Your task to perform on an android device: Open the phone app and click the voicemail tab. Image 0: 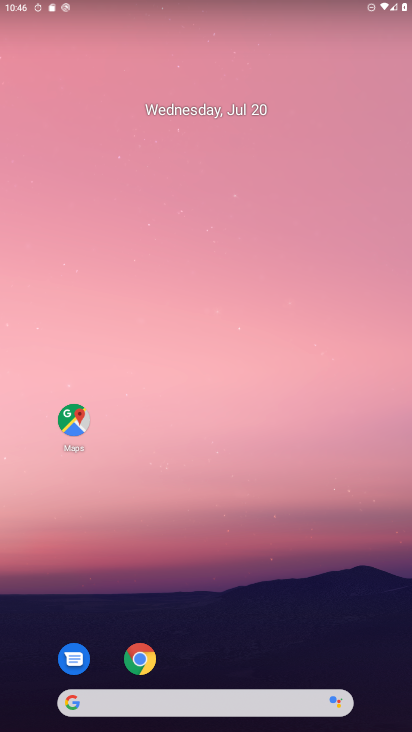
Step 0: drag from (258, 609) to (233, 136)
Your task to perform on an android device: Open the phone app and click the voicemail tab. Image 1: 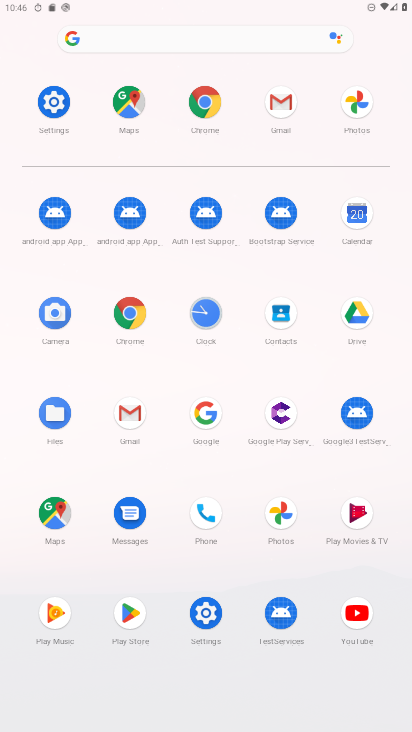
Step 1: click (210, 507)
Your task to perform on an android device: Open the phone app and click the voicemail tab. Image 2: 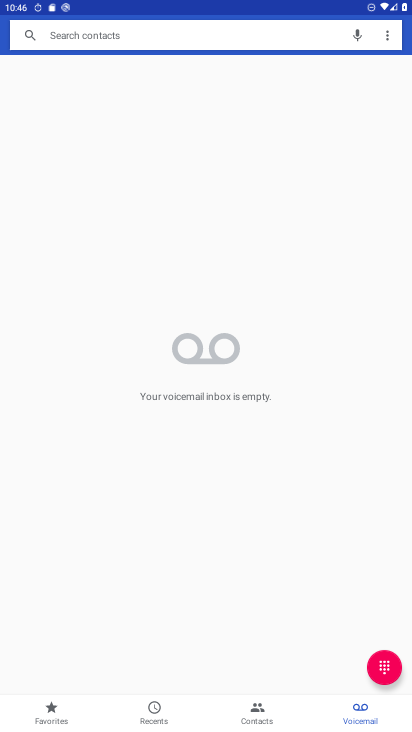
Step 2: click (362, 708)
Your task to perform on an android device: Open the phone app and click the voicemail tab. Image 3: 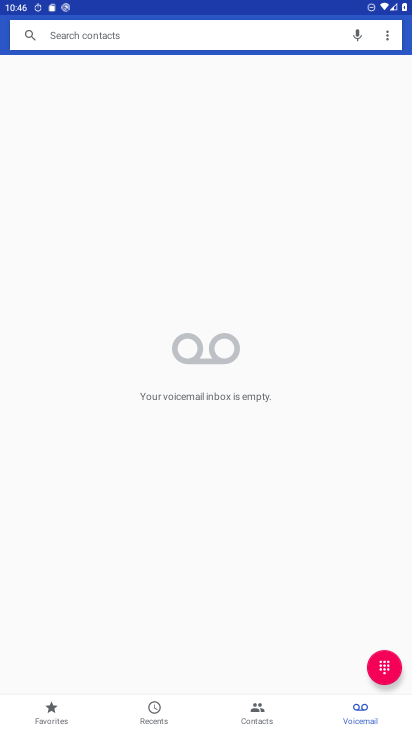
Step 3: task complete